Your task to perform on an android device: Open accessibility settings Image 0: 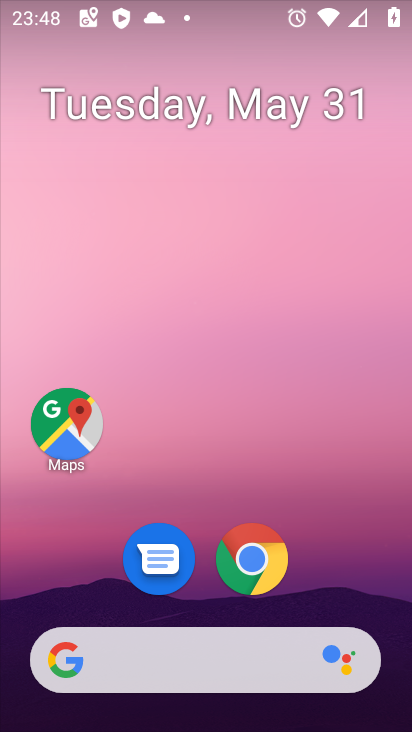
Step 0: drag from (326, 581) to (329, 25)
Your task to perform on an android device: Open accessibility settings Image 1: 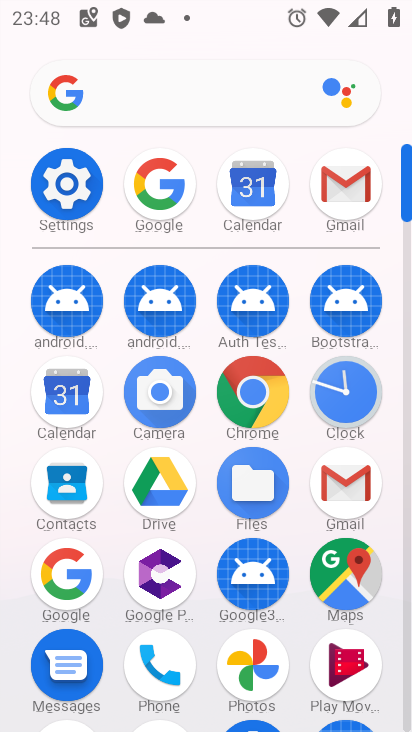
Step 1: click (62, 183)
Your task to perform on an android device: Open accessibility settings Image 2: 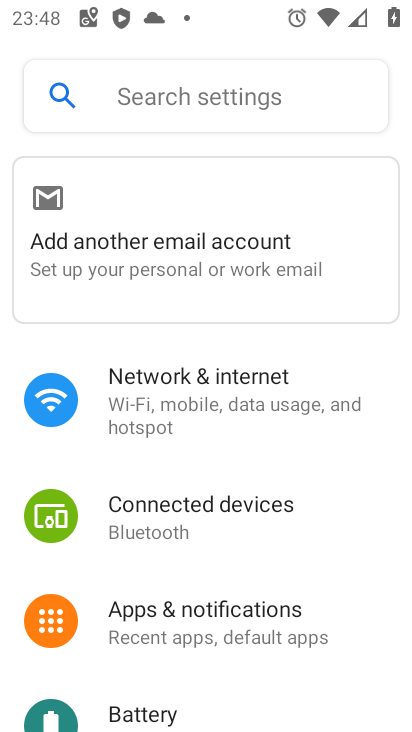
Step 2: drag from (222, 606) to (245, 3)
Your task to perform on an android device: Open accessibility settings Image 3: 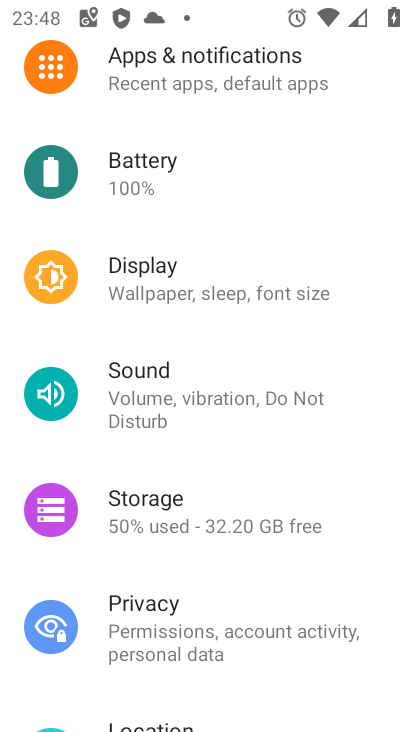
Step 3: drag from (235, 628) to (250, 48)
Your task to perform on an android device: Open accessibility settings Image 4: 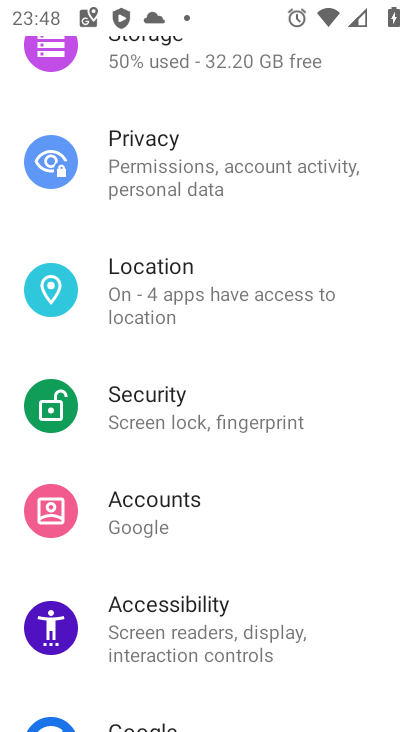
Step 4: click (147, 644)
Your task to perform on an android device: Open accessibility settings Image 5: 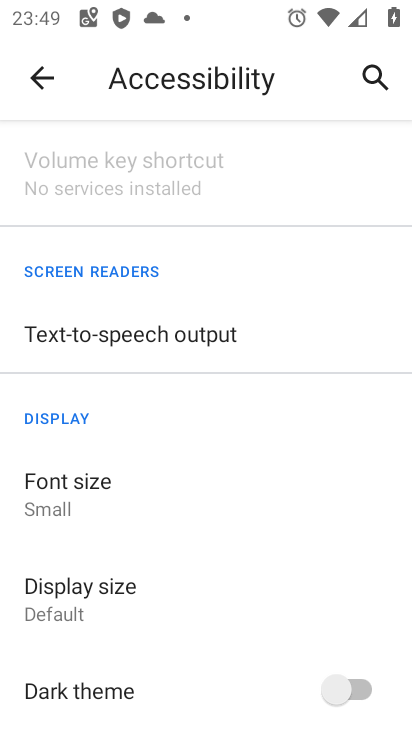
Step 5: task complete